Your task to perform on an android device: Open Amazon Image 0: 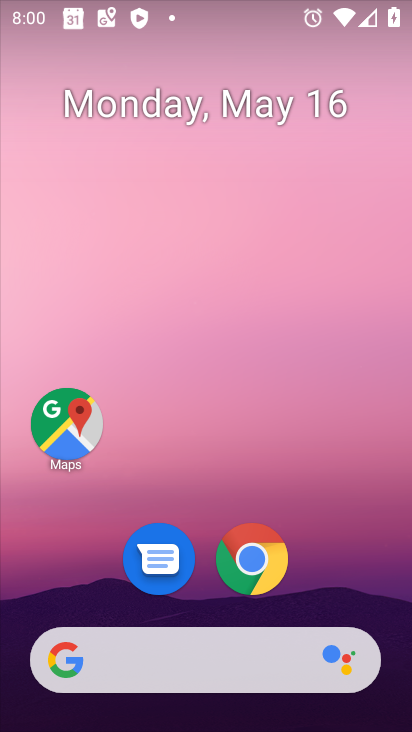
Step 0: drag from (341, 588) to (327, 180)
Your task to perform on an android device: Open Amazon Image 1: 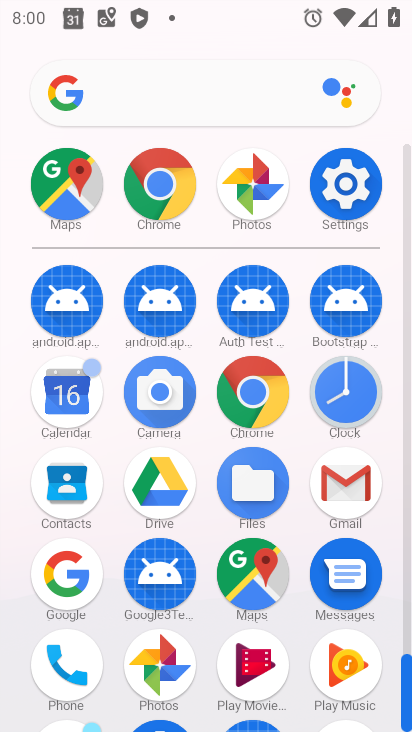
Step 1: click (250, 405)
Your task to perform on an android device: Open Amazon Image 2: 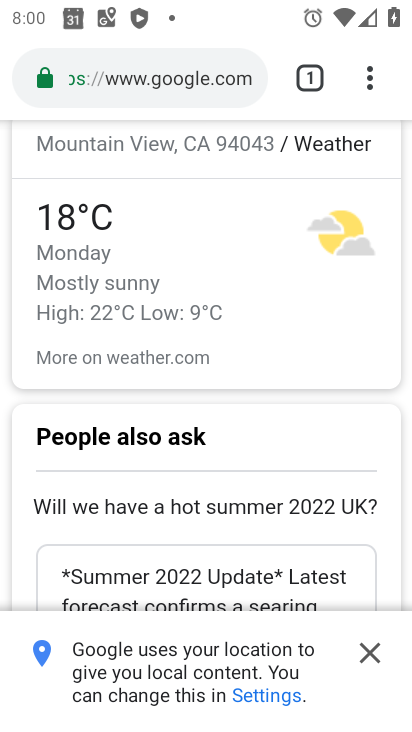
Step 2: click (311, 84)
Your task to perform on an android device: Open Amazon Image 3: 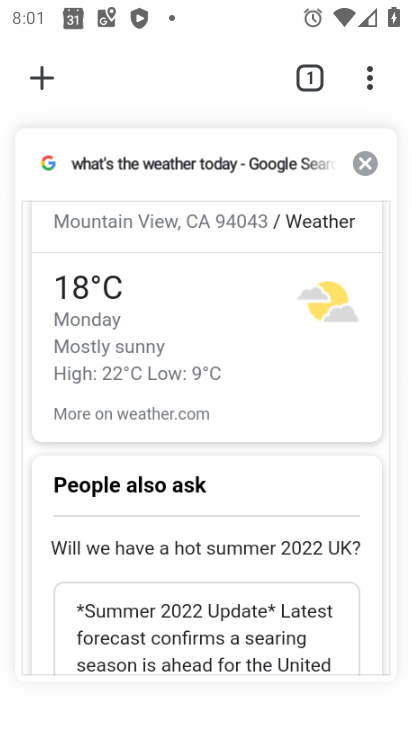
Step 3: click (38, 80)
Your task to perform on an android device: Open Amazon Image 4: 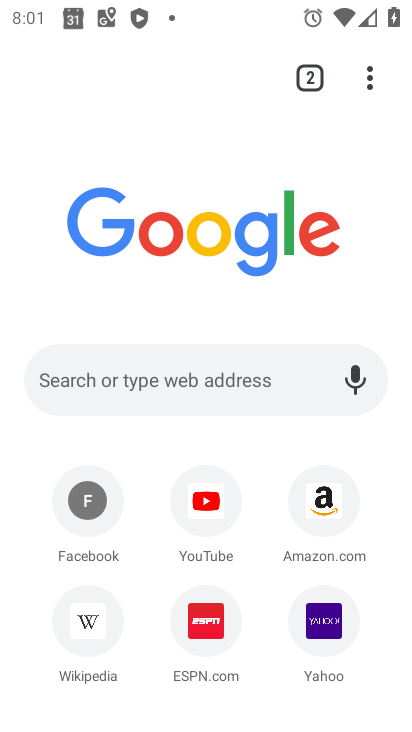
Step 4: click (335, 527)
Your task to perform on an android device: Open Amazon Image 5: 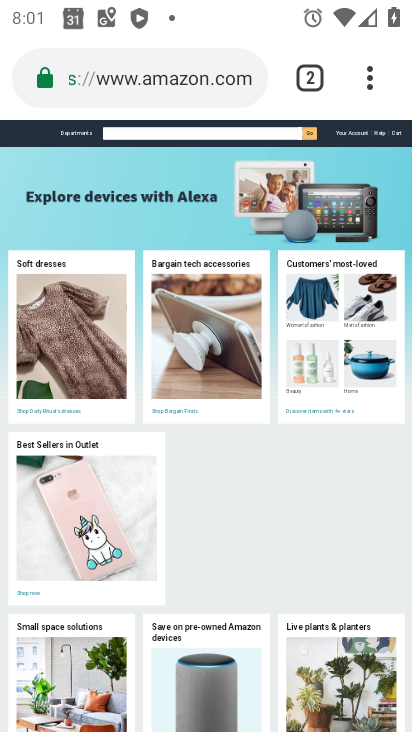
Step 5: task complete